Your task to perform on an android device: Search for usb-c to usb-a on ebay, select the first entry, add it to the cart, then select checkout. Image 0: 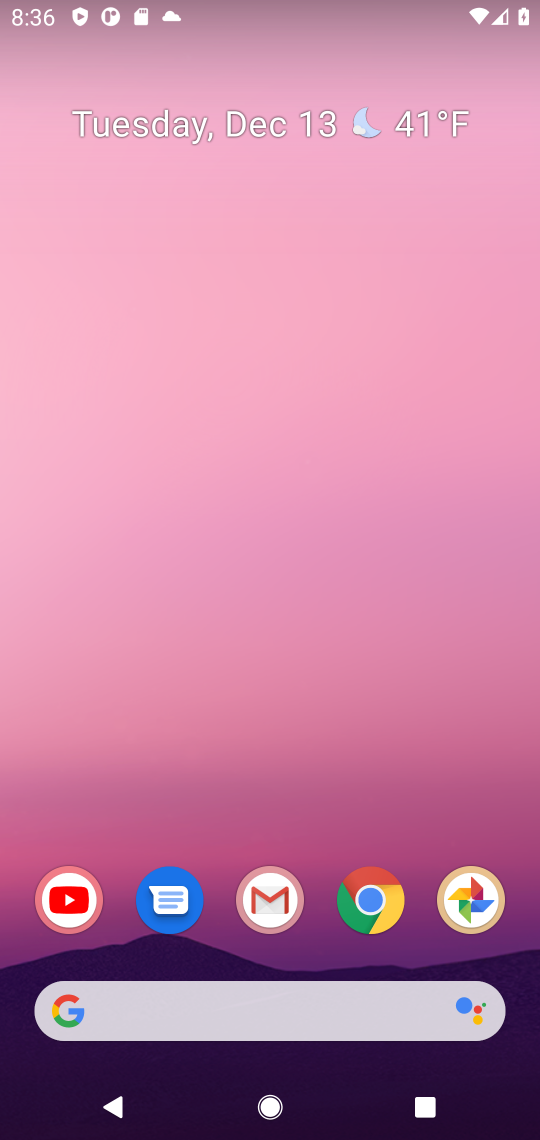
Step 0: click (364, 905)
Your task to perform on an android device: Search for usb-c to usb-a on ebay, select the first entry, add it to the cart, then select checkout. Image 1: 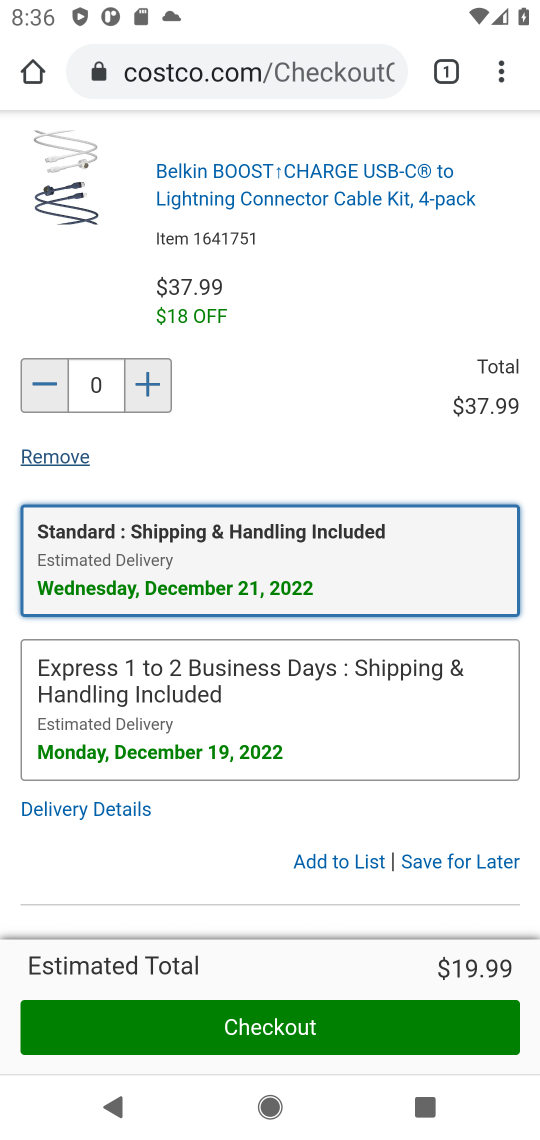
Step 1: click (261, 65)
Your task to perform on an android device: Search for usb-c to usb-a on ebay, select the first entry, add it to the cart, then select checkout. Image 2: 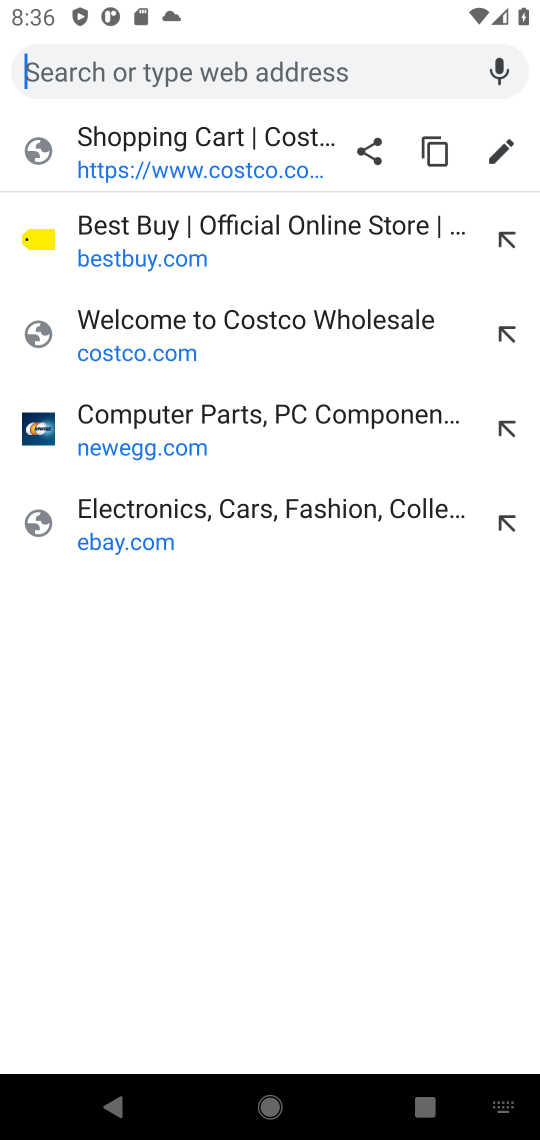
Step 2: type "ebay"
Your task to perform on an android device: Search for usb-c to usb-a on ebay, select the first entry, add it to the cart, then select checkout. Image 3: 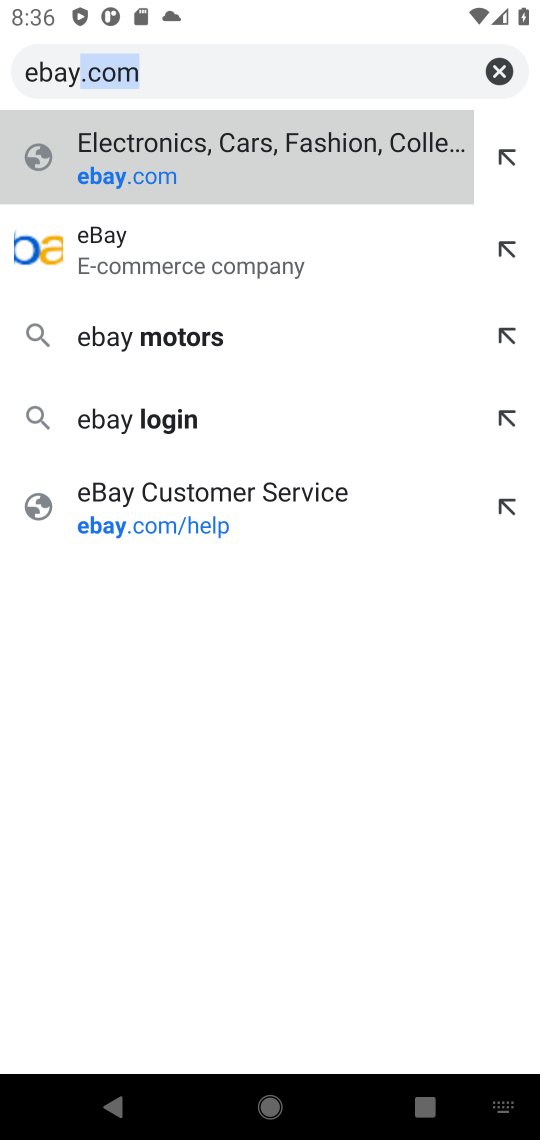
Step 3: click (193, 524)
Your task to perform on an android device: Search for usb-c to usb-a on ebay, select the first entry, add it to the cart, then select checkout. Image 4: 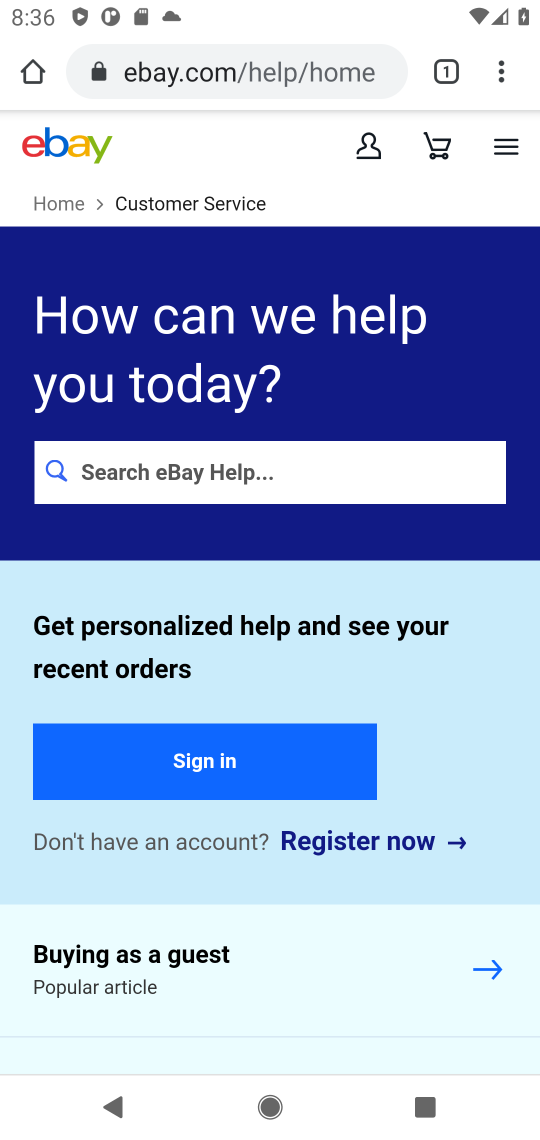
Step 4: click (296, 80)
Your task to perform on an android device: Search for usb-c to usb-a on ebay, select the first entry, add it to the cart, then select checkout. Image 5: 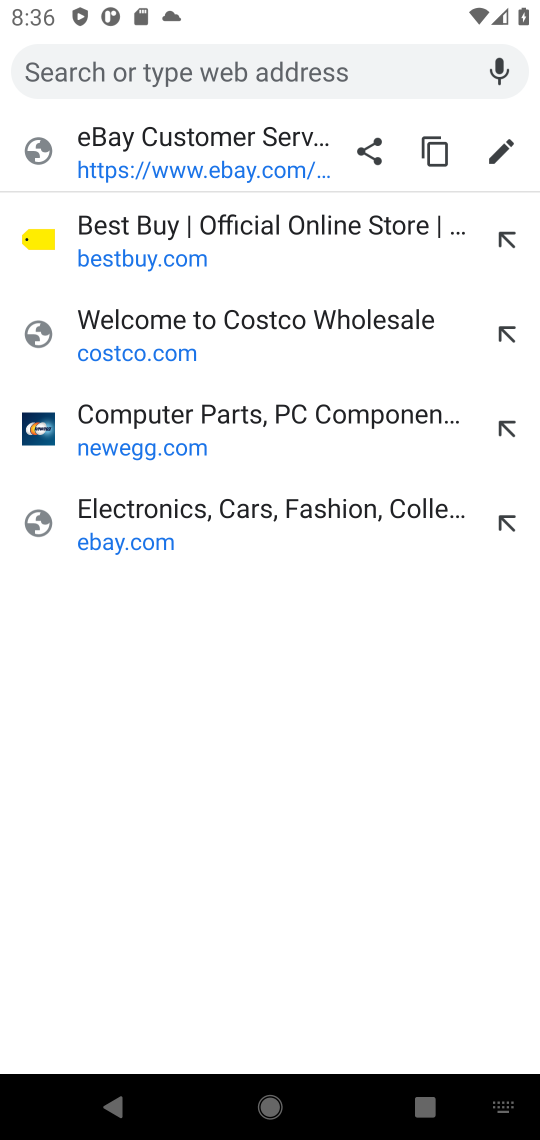
Step 5: click (151, 528)
Your task to perform on an android device: Search for usb-c to usb-a on ebay, select the first entry, add it to the cart, then select checkout. Image 6: 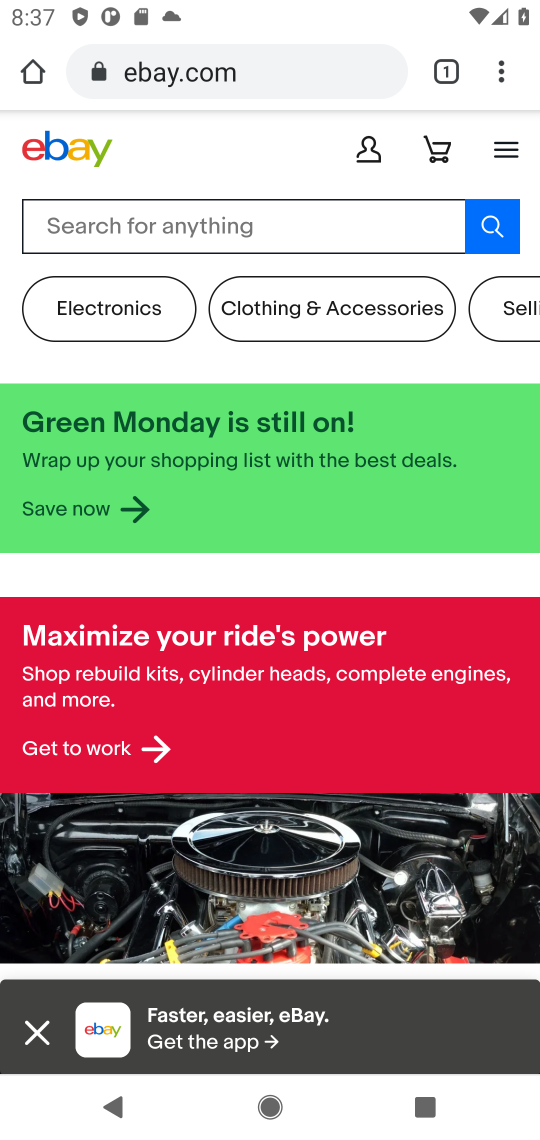
Step 6: click (318, 238)
Your task to perform on an android device: Search for usb-c to usb-a on ebay, select the first entry, add it to the cart, then select checkout. Image 7: 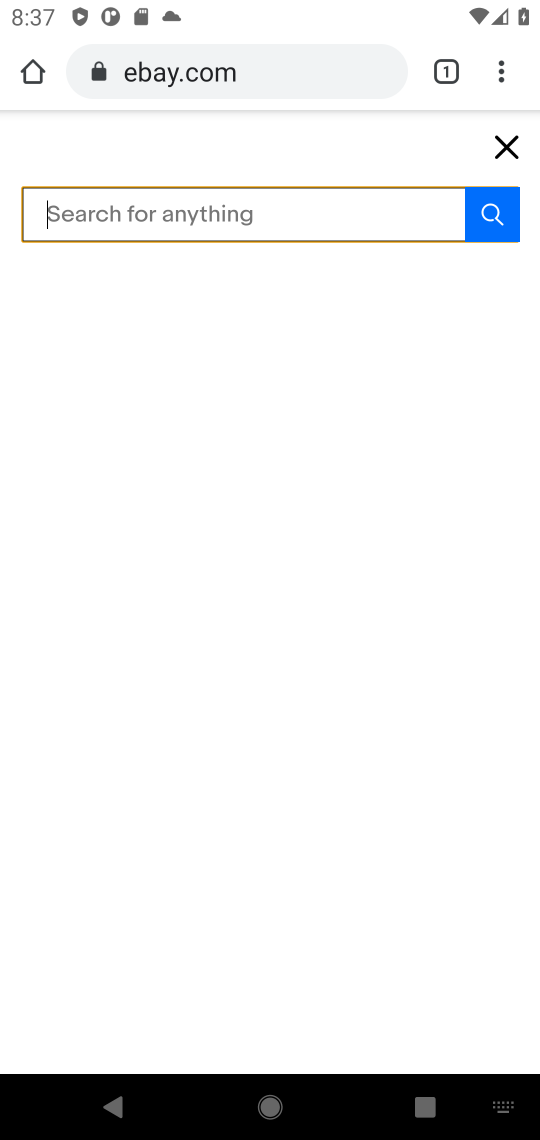
Step 7: type "usb-c to usb-a"
Your task to perform on an android device: Search for usb-c to usb-a on ebay, select the first entry, add it to the cart, then select checkout. Image 8: 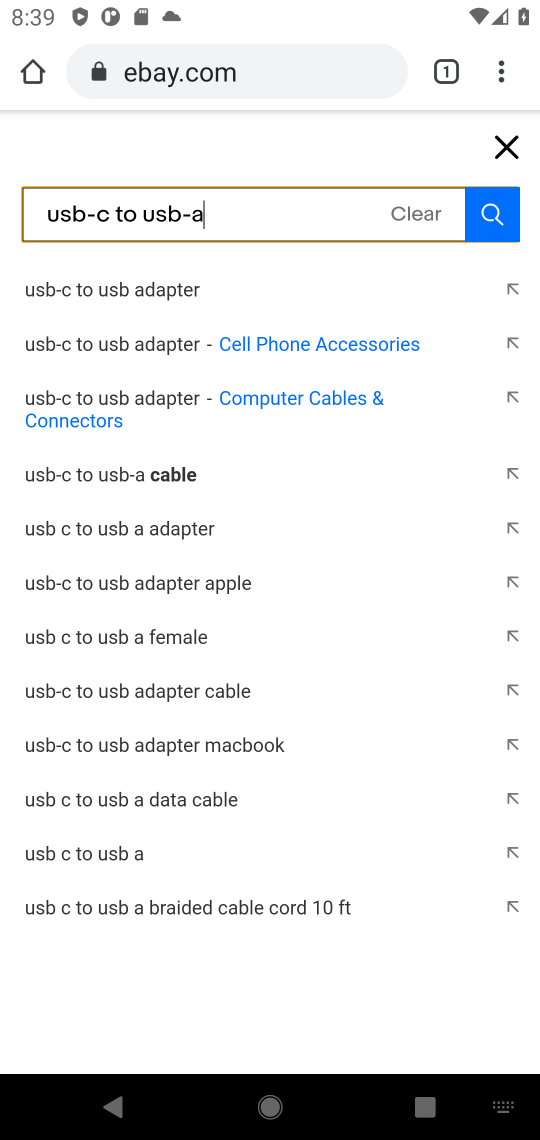
Step 8: click (199, 303)
Your task to perform on an android device: Search for usb-c to usb-a on ebay, select the first entry, add it to the cart, then select checkout. Image 9: 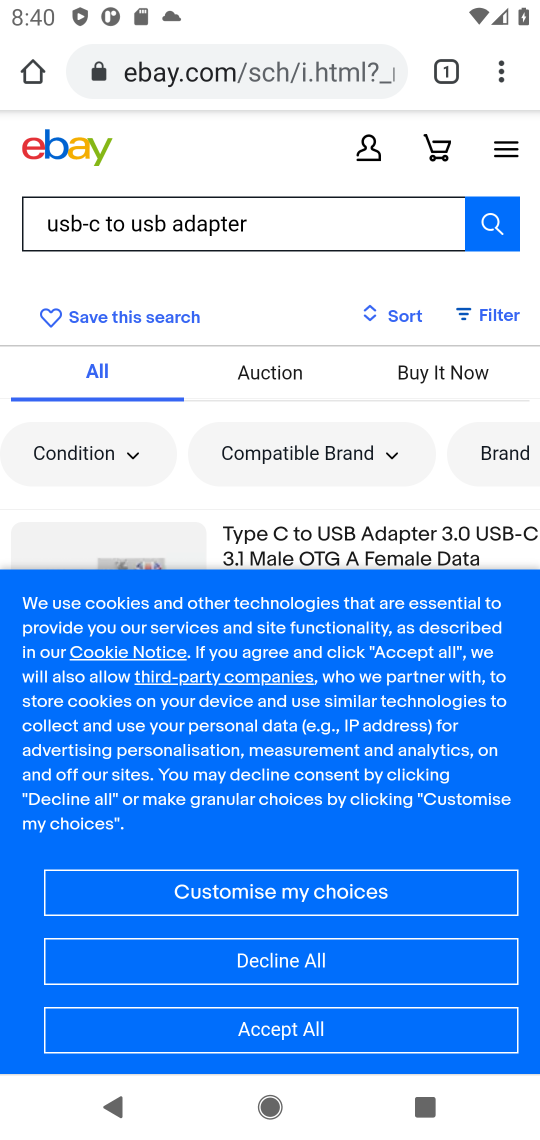
Step 9: click (495, 212)
Your task to perform on an android device: Search for usb-c to usb-a on ebay, select the first entry, add it to the cart, then select checkout. Image 10: 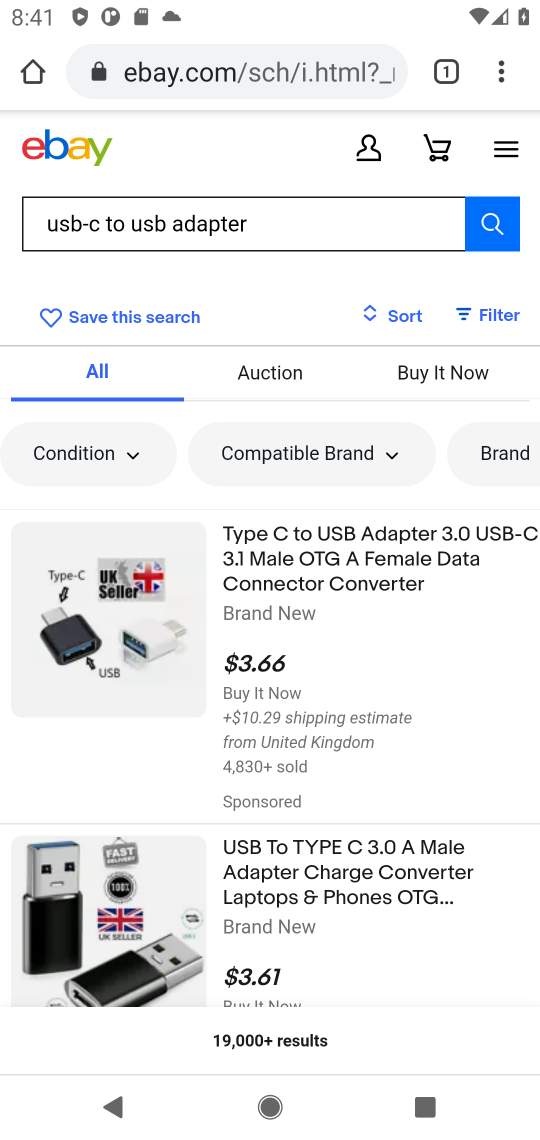
Step 10: click (398, 583)
Your task to perform on an android device: Search for usb-c to usb-a on ebay, select the first entry, add it to the cart, then select checkout. Image 11: 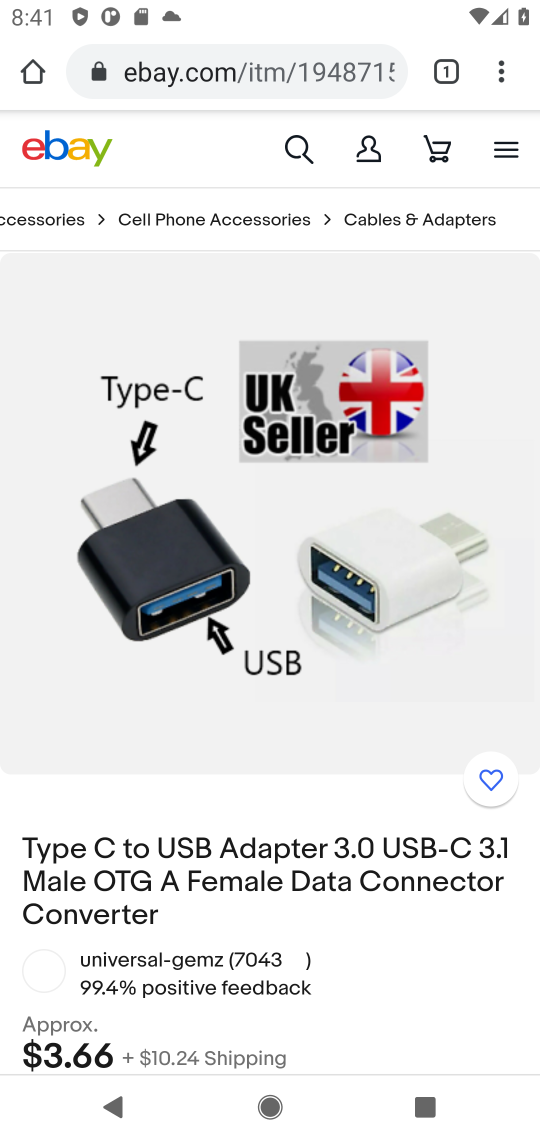
Step 11: drag from (427, 970) to (357, 235)
Your task to perform on an android device: Search for usb-c to usb-a on ebay, select the first entry, add it to the cart, then select checkout. Image 12: 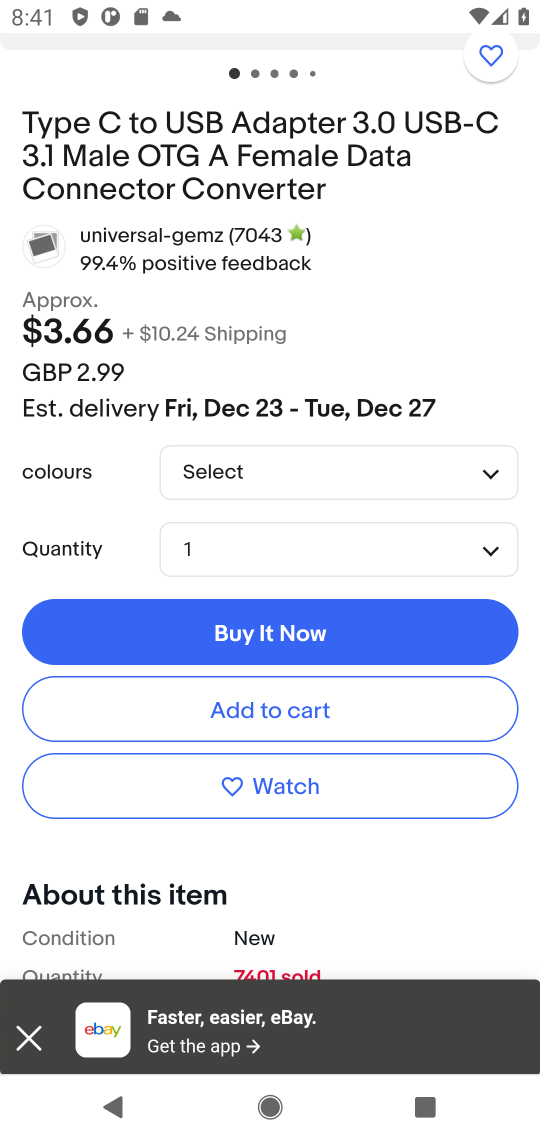
Step 12: click (312, 709)
Your task to perform on an android device: Search for usb-c to usb-a on ebay, select the first entry, add it to the cart, then select checkout. Image 13: 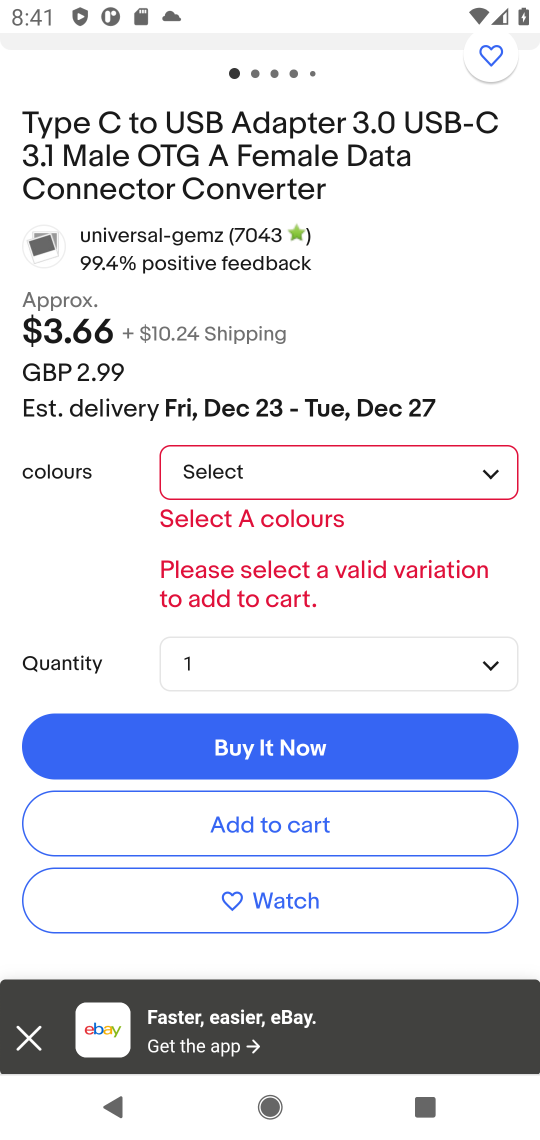
Step 13: click (373, 468)
Your task to perform on an android device: Search for usb-c to usb-a on ebay, select the first entry, add it to the cart, then select checkout. Image 14: 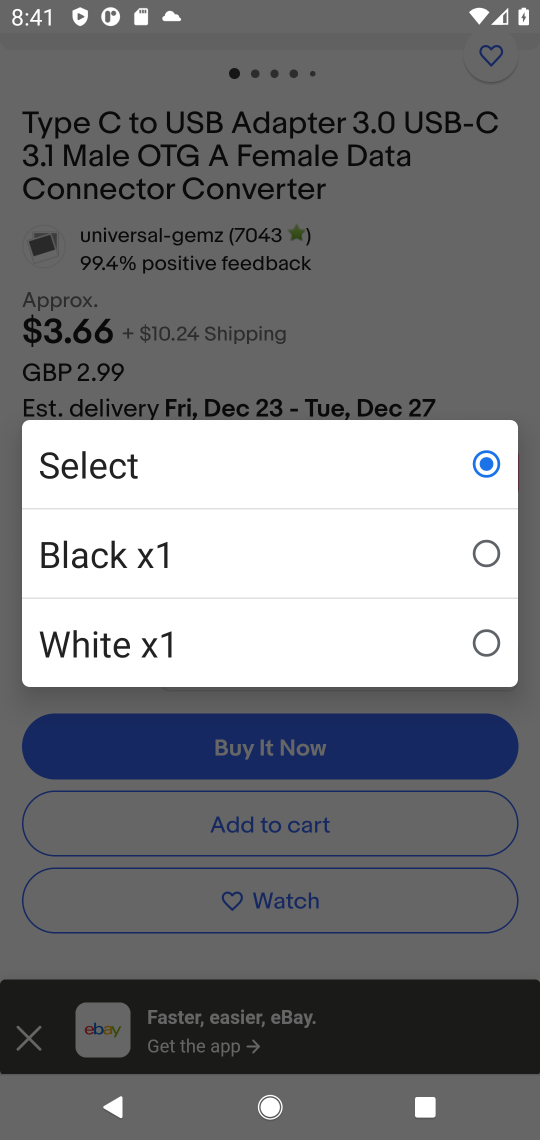
Step 14: click (249, 559)
Your task to perform on an android device: Search for usb-c to usb-a on ebay, select the first entry, add it to the cart, then select checkout. Image 15: 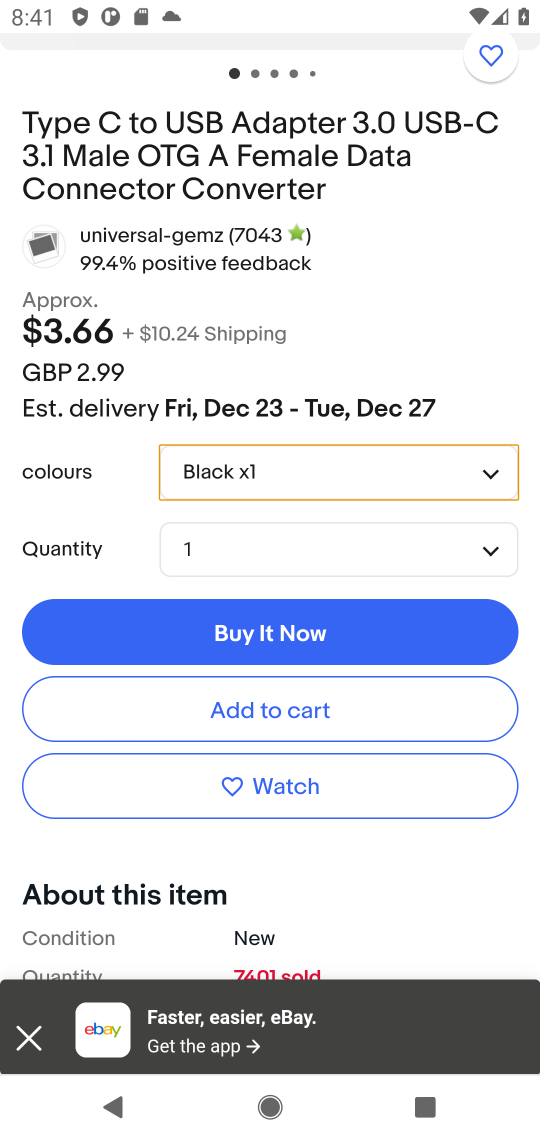
Step 15: click (303, 708)
Your task to perform on an android device: Search for usb-c to usb-a on ebay, select the first entry, add it to the cart, then select checkout. Image 16: 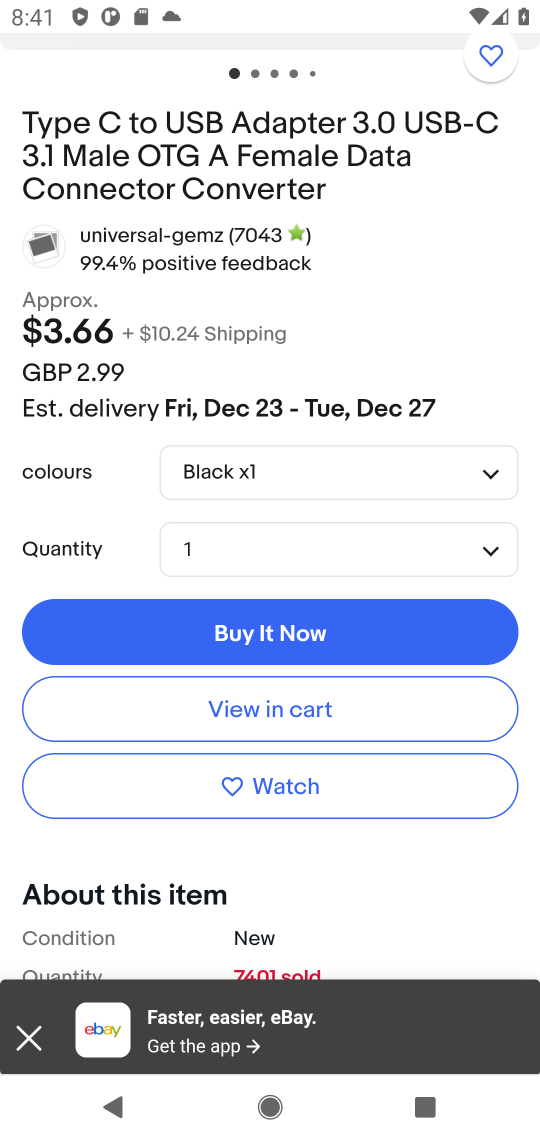
Step 16: click (303, 708)
Your task to perform on an android device: Search for usb-c to usb-a on ebay, select the first entry, add it to the cart, then select checkout. Image 17: 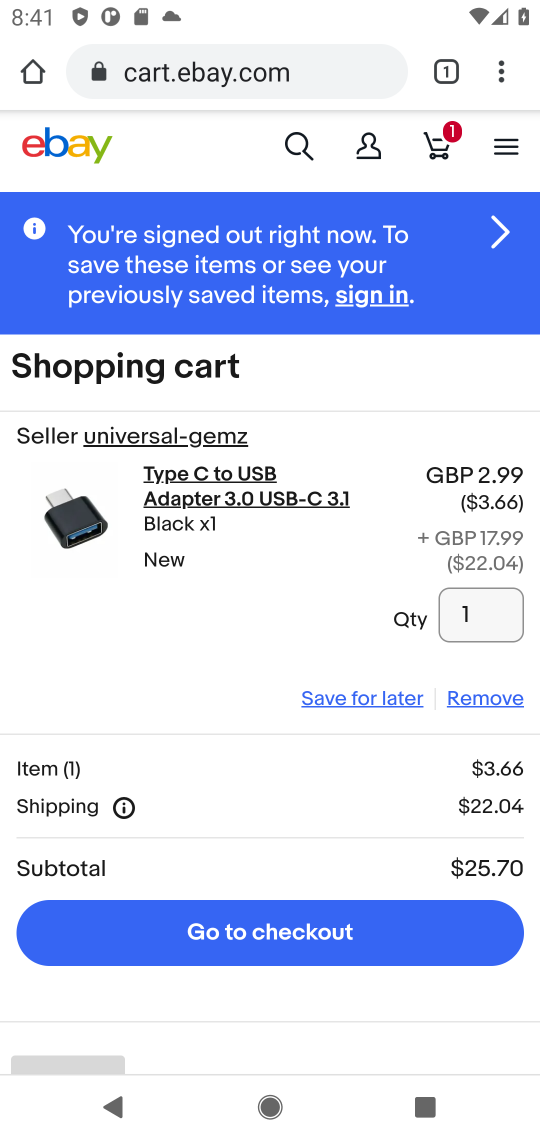
Step 17: click (277, 925)
Your task to perform on an android device: Search for usb-c to usb-a on ebay, select the first entry, add it to the cart, then select checkout. Image 18: 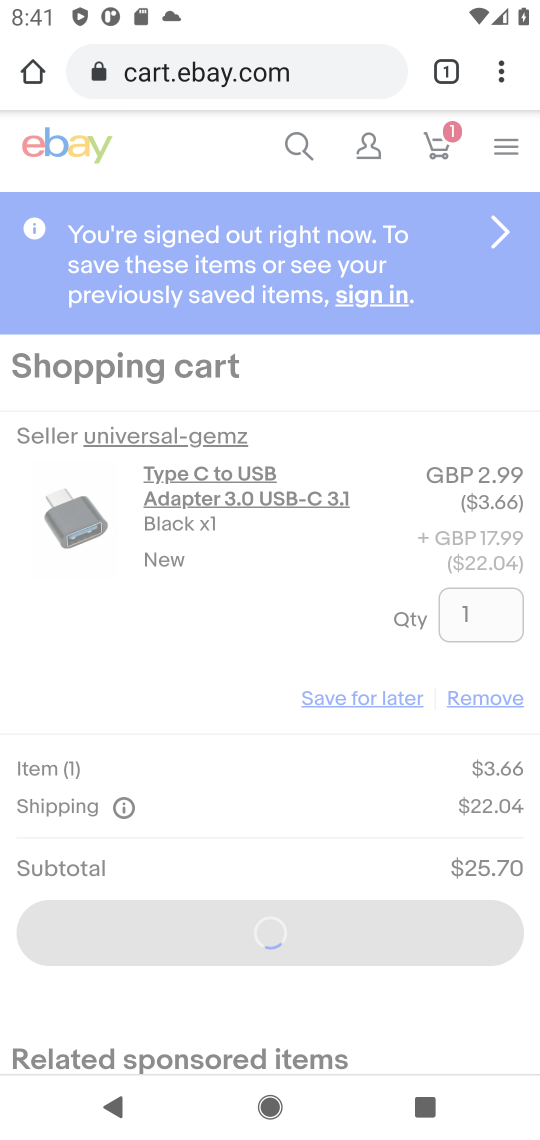
Step 18: task complete